Your task to perform on an android device: change notifications settings Image 0: 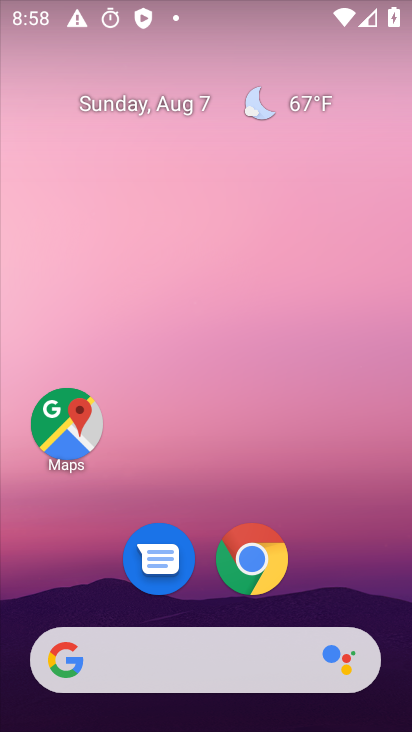
Step 0: drag from (272, 632) to (271, 213)
Your task to perform on an android device: change notifications settings Image 1: 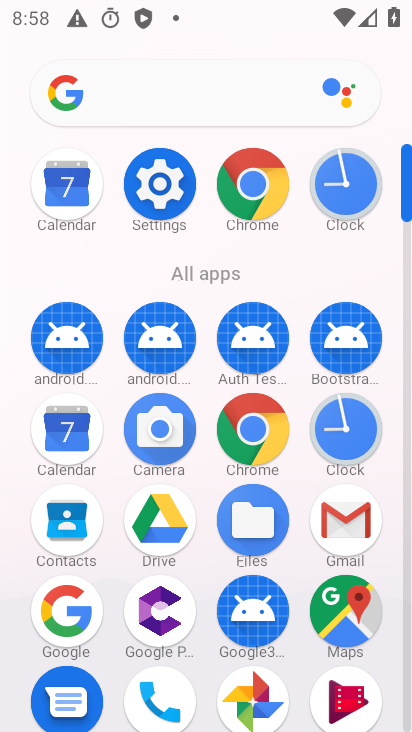
Step 1: click (178, 188)
Your task to perform on an android device: change notifications settings Image 2: 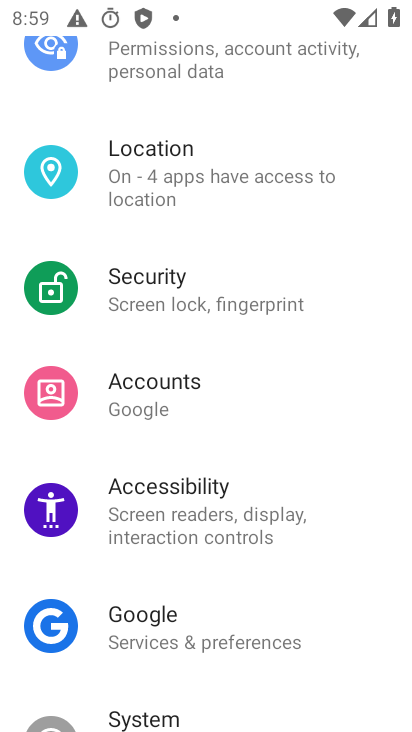
Step 2: drag from (320, 134) to (302, 371)
Your task to perform on an android device: change notifications settings Image 3: 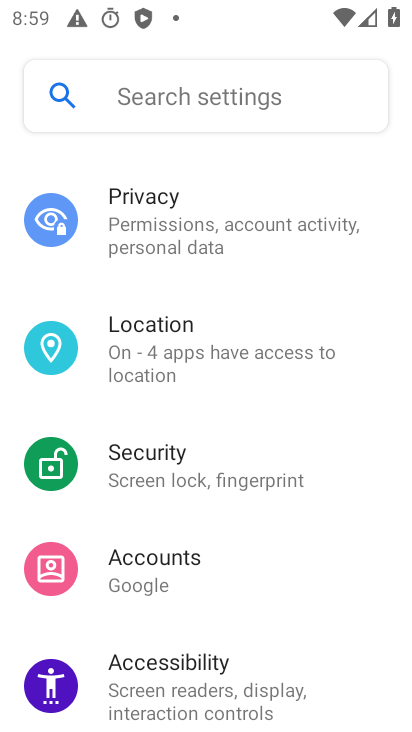
Step 3: drag from (388, 291) to (306, 590)
Your task to perform on an android device: change notifications settings Image 4: 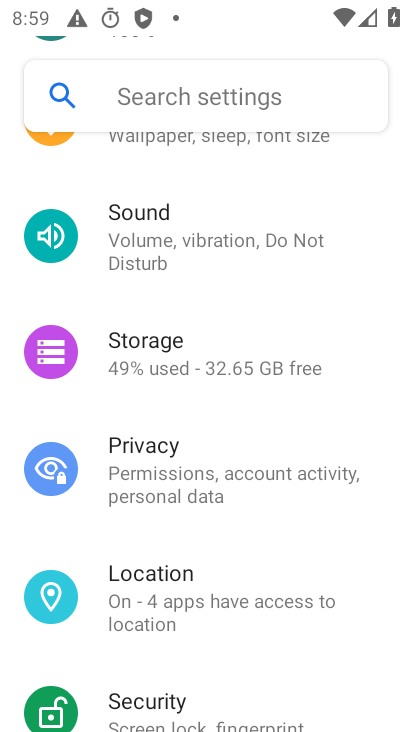
Step 4: drag from (373, 204) to (246, 636)
Your task to perform on an android device: change notifications settings Image 5: 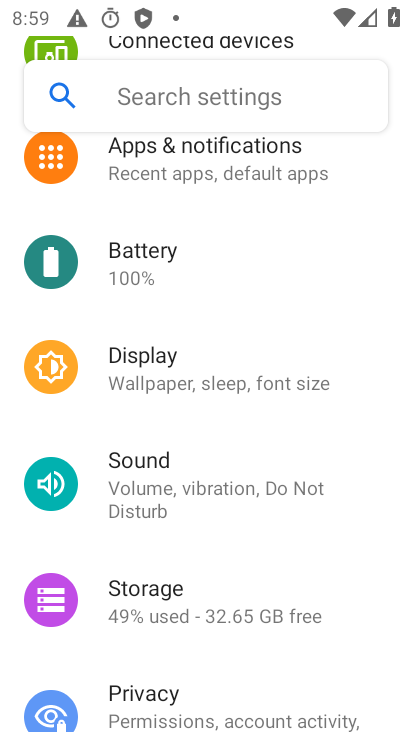
Step 5: click (303, 169)
Your task to perform on an android device: change notifications settings Image 6: 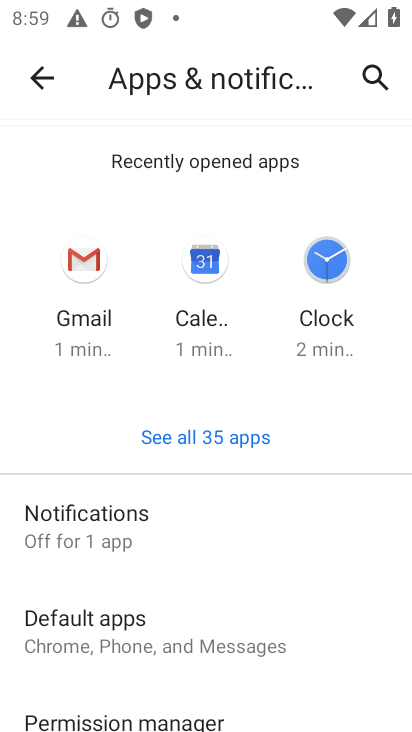
Step 6: click (166, 523)
Your task to perform on an android device: change notifications settings Image 7: 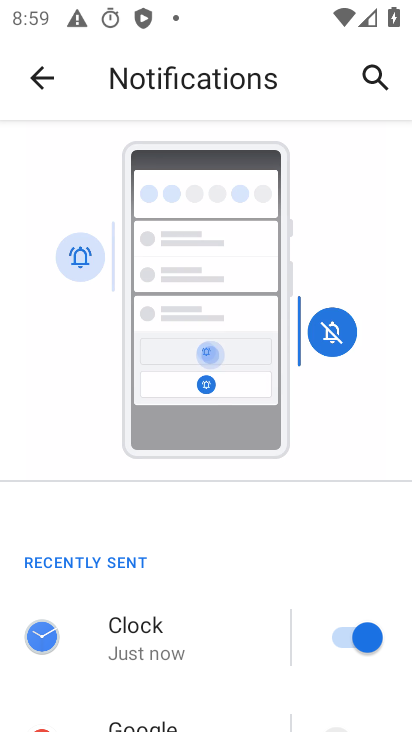
Step 7: click (355, 624)
Your task to perform on an android device: change notifications settings Image 8: 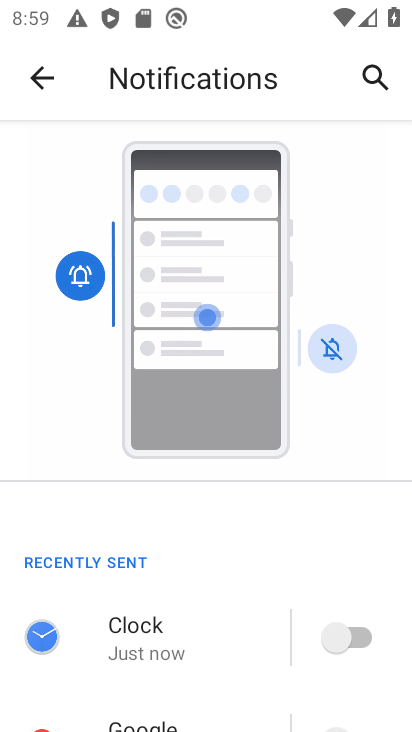
Step 8: task complete